Your task to perform on an android device: empty trash in the gmail app Image 0: 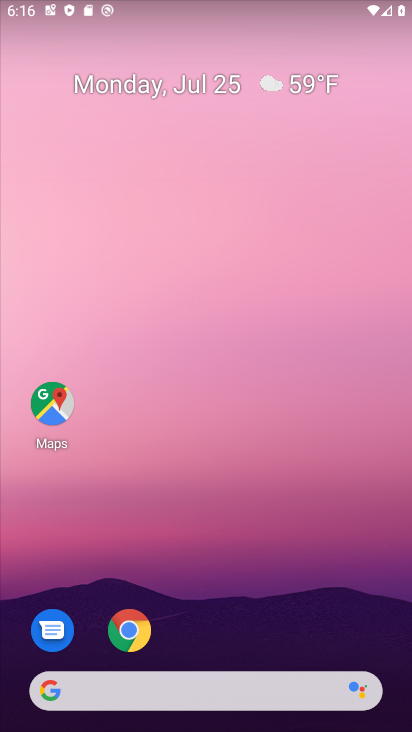
Step 0: drag from (197, 625) to (317, 36)
Your task to perform on an android device: empty trash in the gmail app Image 1: 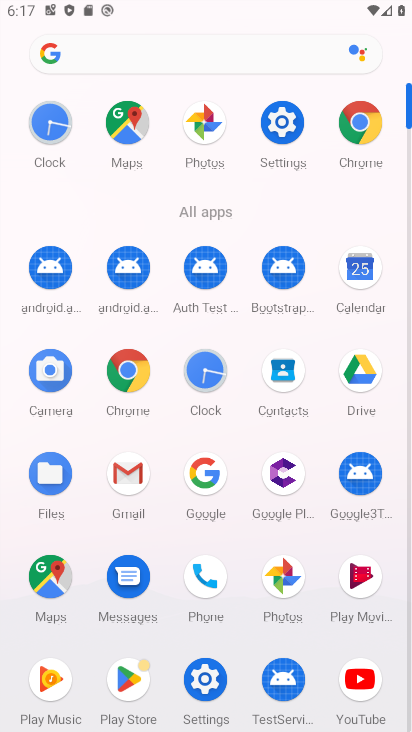
Step 1: click (120, 476)
Your task to perform on an android device: empty trash in the gmail app Image 2: 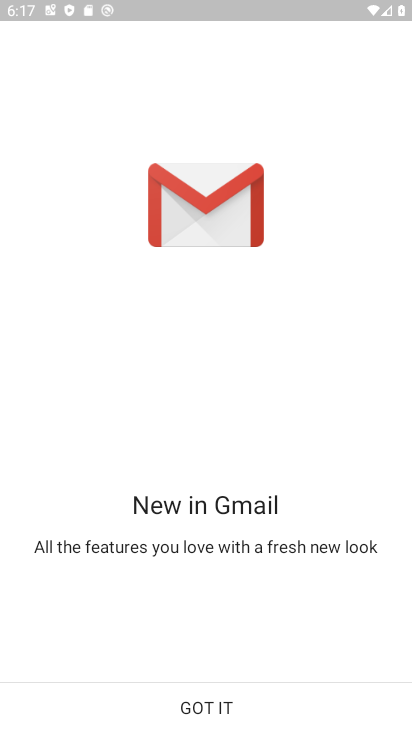
Step 2: click (225, 697)
Your task to perform on an android device: empty trash in the gmail app Image 3: 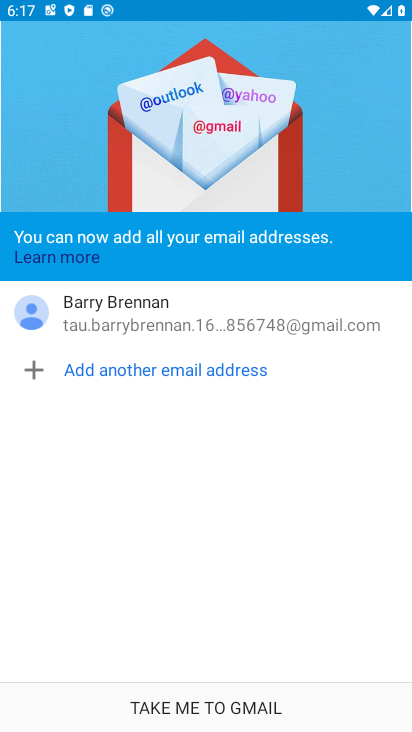
Step 3: click (225, 697)
Your task to perform on an android device: empty trash in the gmail app Image 4: 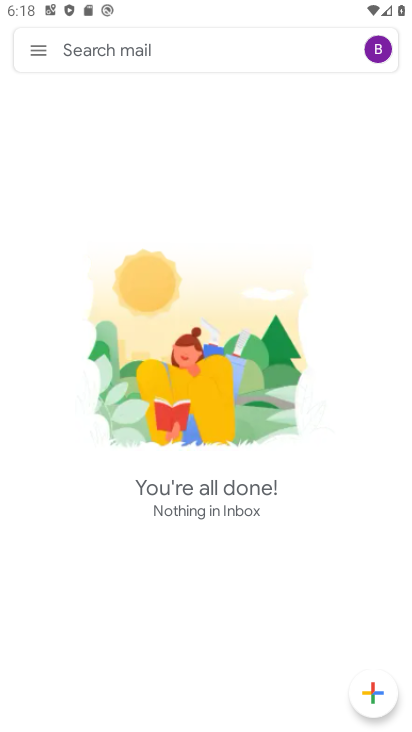
Step 4: click (34, 50)
Your task to perform on an android device: empty trash in the gmail app Image 5: 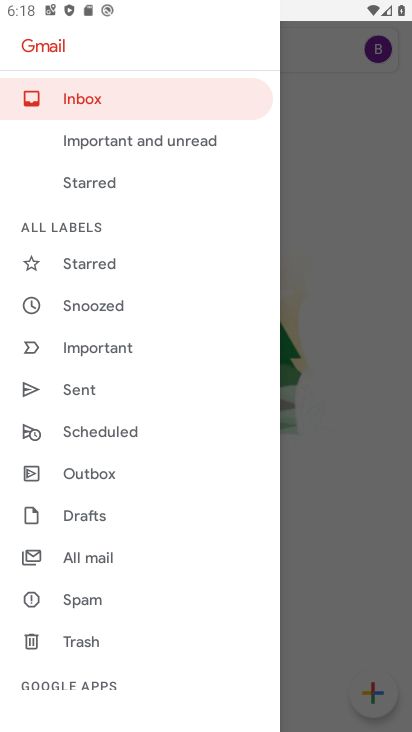
Step 5: click (90, 645)
Your task to perform on an android device: empty trash in the gmail app Image 6: 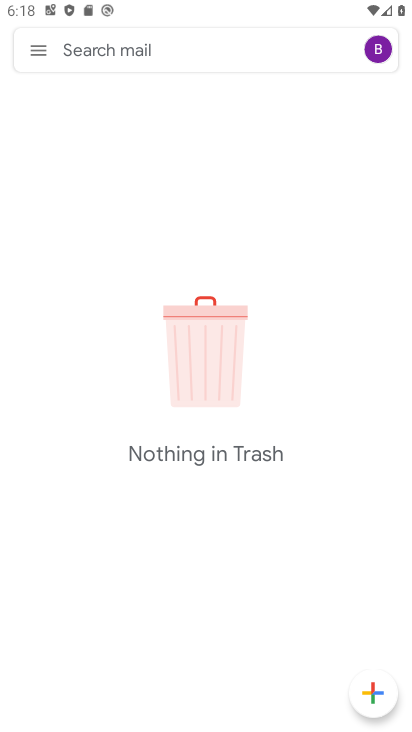
Step 6: task complete